Your task to perform on an android device: show emergency info Image 0: 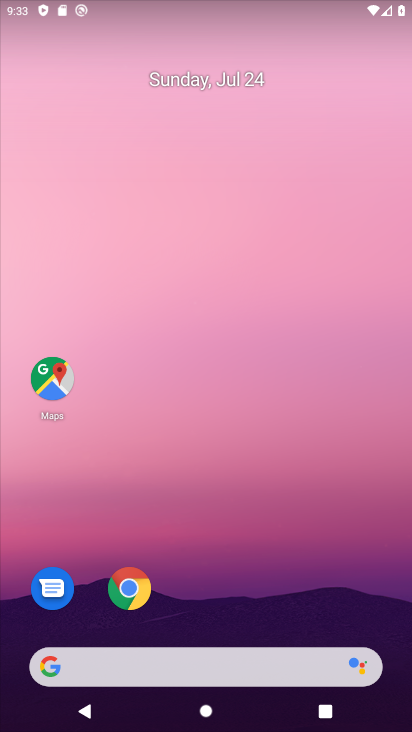
Step 0: drag from (250, 672) to (236, 96)
Your task to perform on an android device: show emergency info Image 1: 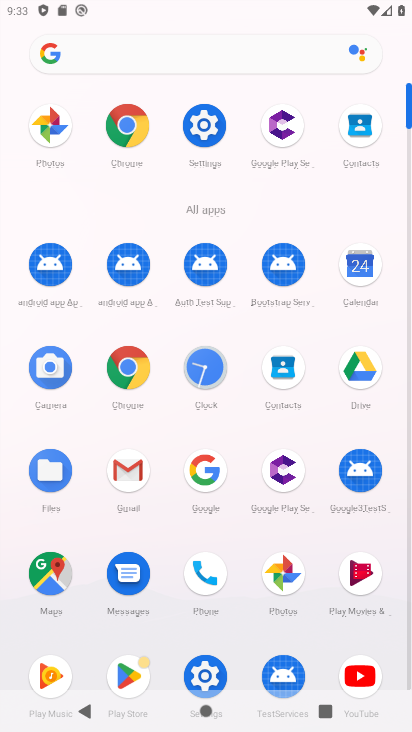
Step 1: click (222, 118)
Your task to perform on an android device: show emergency info Image 2: 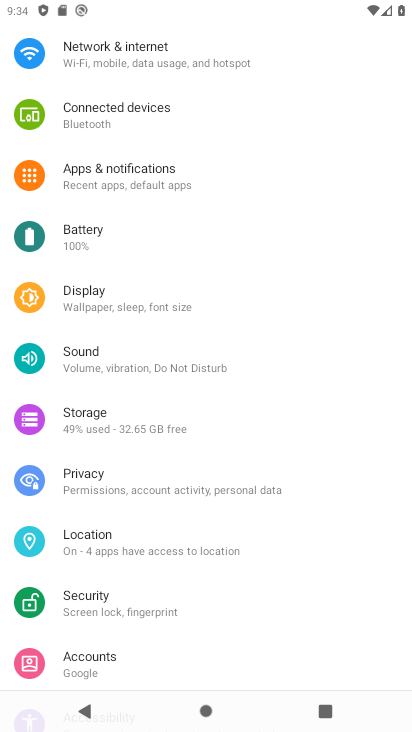
Step 2: drag from (125, 661) to (141, 193)
Your task to perform on an android device: show emergency info Image 3: 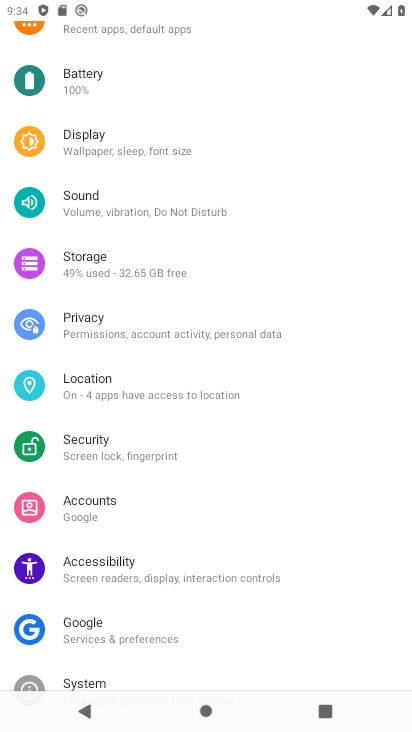
Step 3: drag from (220, 510) to (190, 237)
Your task to perform on an android device: show emergency info Image 4: 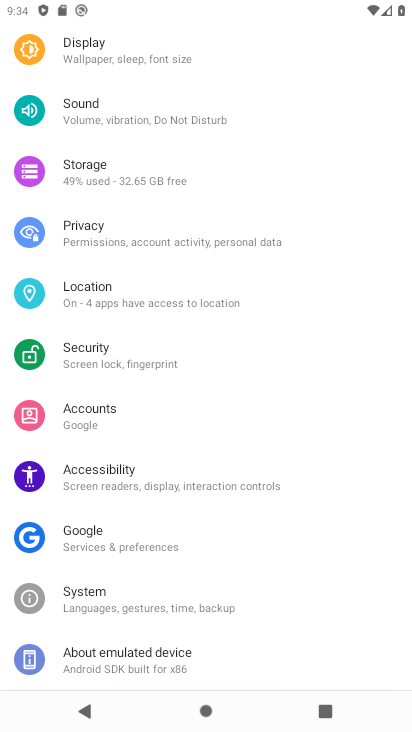
Step 4: drag from (140, 547) to (140, 78)
Your task to perform on an android device: show emergency info Image 5: 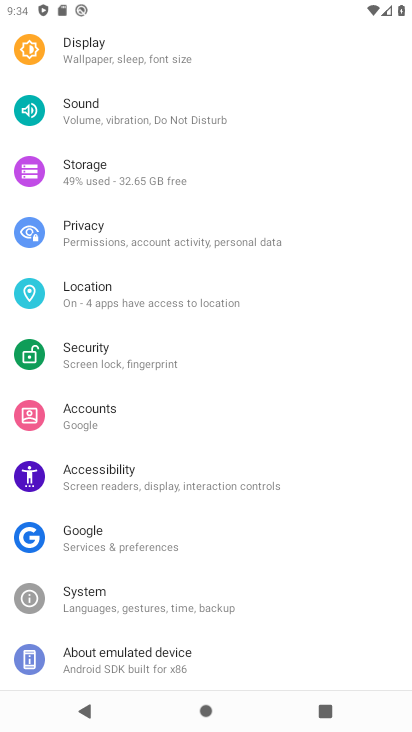
Step 5: click (119, 654)
Your task to perform on an android device: show emergency info Image 6: 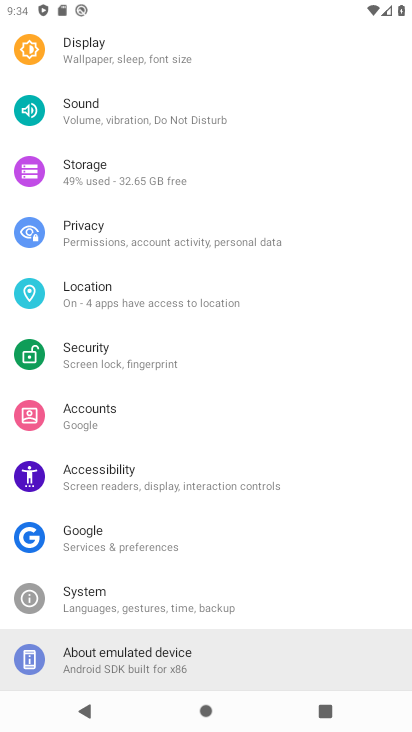
Step 6: click (120, 654)
Your task to perform on an android device: show emergency info Image 7: 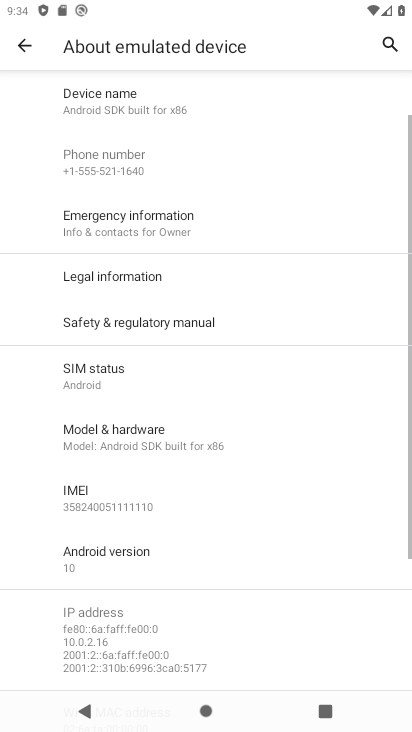
Step 7: click (104, 228)
Your task to perform on an android device: show emergency info Image 8: 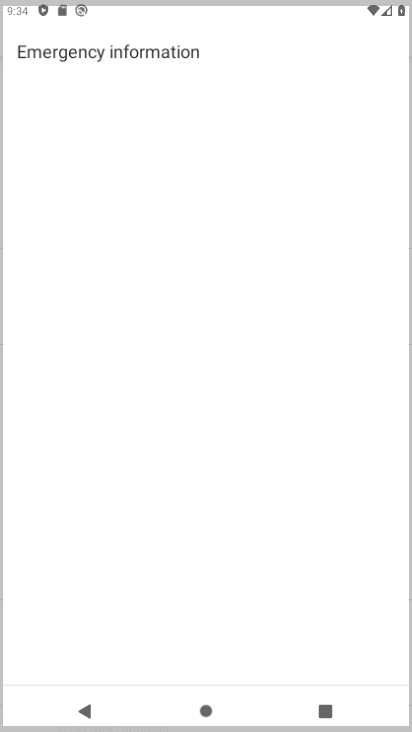
Step 8: click (113, 222)
Your task to perform on an android device: show emergency info Image 9: 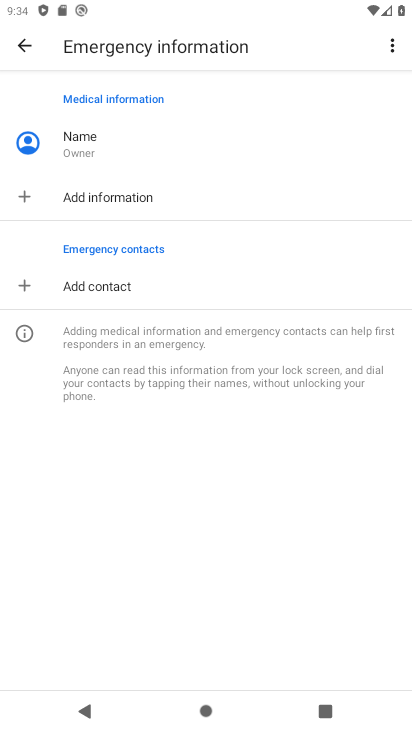
Step 9: task complete